Your task to perform on an android device: turn off notifications in google photos Image 0: 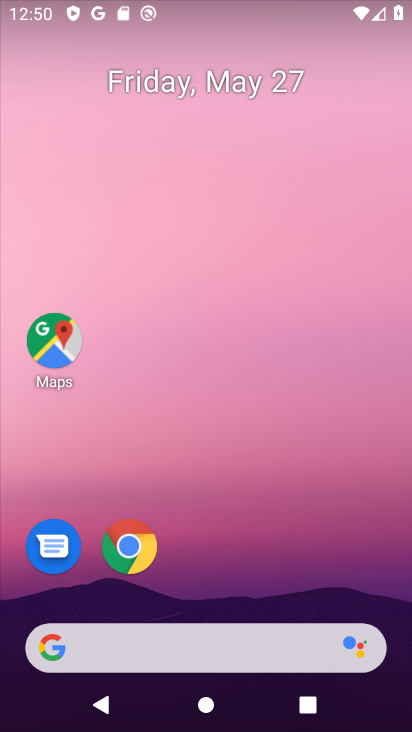
Step 0: drag from (246, 698) to (188, 257)
Your task to perform on an android device: turn off notifications in google photos Image 1: 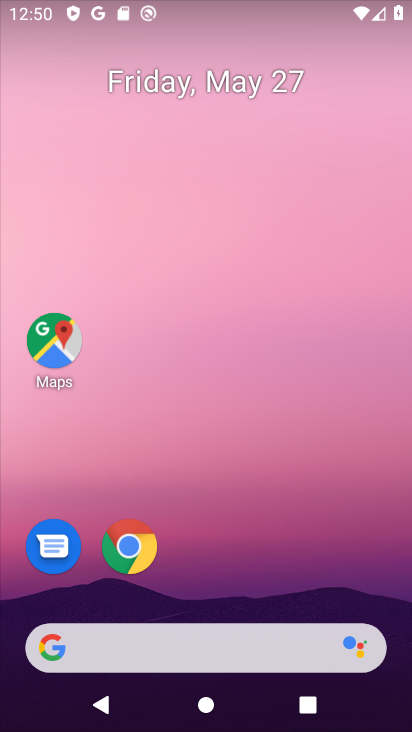
Step 1: drag from (284, 685) to (246, 310)
Your task to perform on an android device: turn off notifications in google photos Image 2: 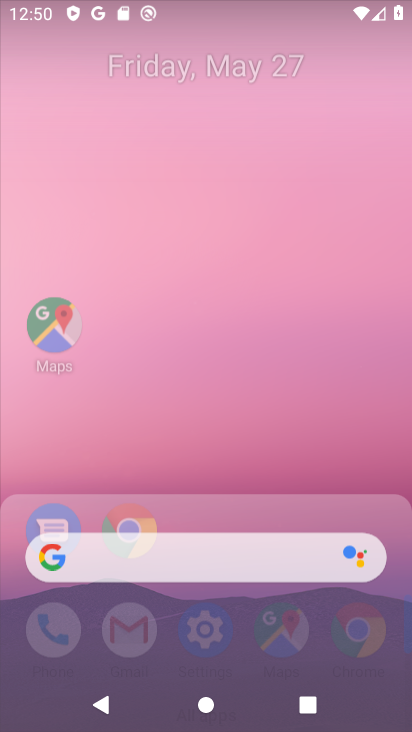
Step 2: drag from (234, 526) to (230, 209)
Your task to perform on an android device: turn off notifications in google photos Image 3: 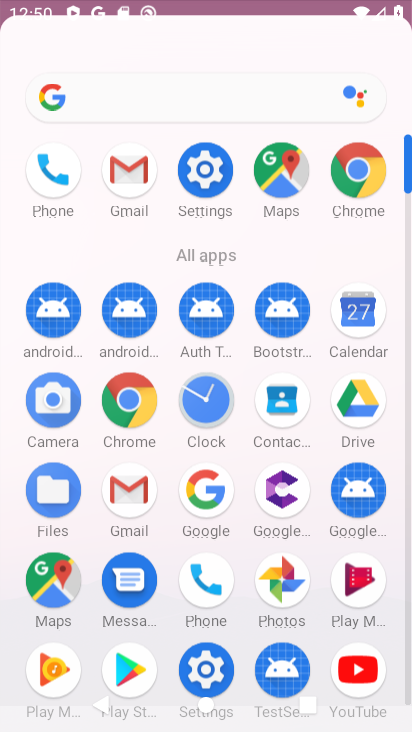
Step 3: drag from (257, 442) to (222, 82)
Your task to perform on an android device: turn off notifications in google photos Image 4: 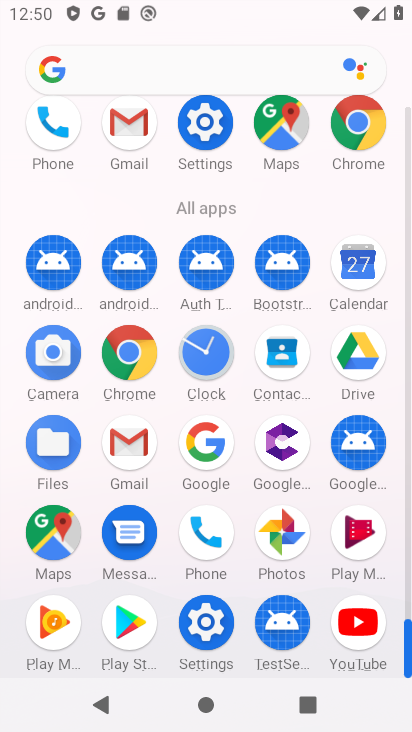
Step 4: click (272, 528)
Your task to perform on an android device: turn off notifications in google photos Image 5: 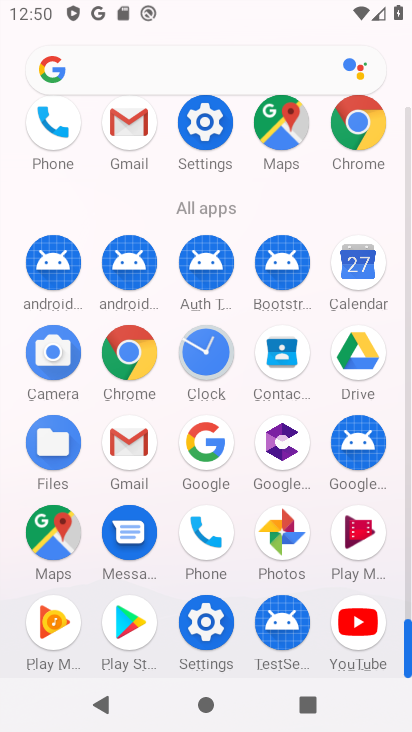
Step 5: click (272, 528)
Your task to perform on an android device: turn off notifications in google photos Image 6: 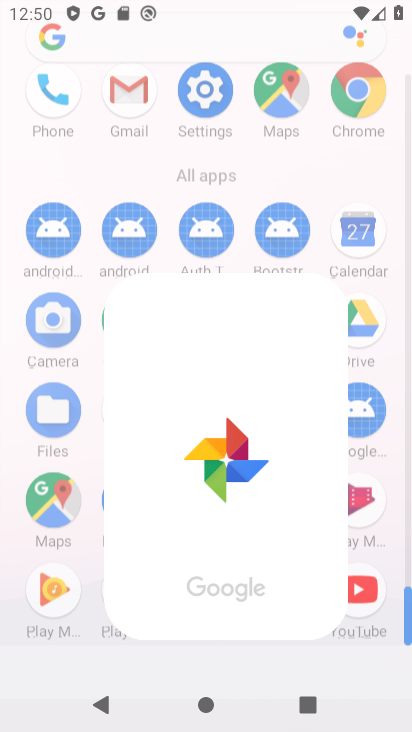
Step 6: click (272, 528)
Your task to perform on an android device: turn off notifications in google photos Image 7: 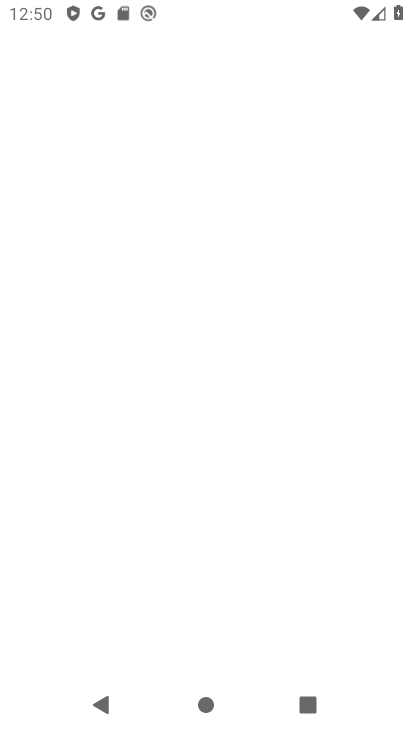
Step 7: click (273, 527)
Your task to perform on an android device: turn off notifications in google photos Image 8: 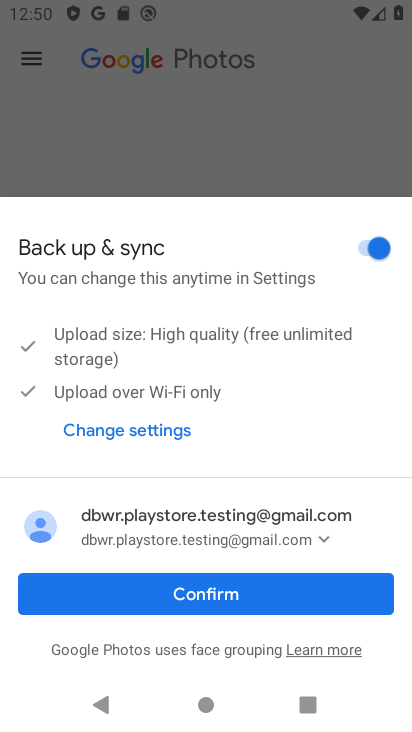
Step 8: click (233, 586)
Your task to perform on an android device: turn off notifications in google photos Image 9: 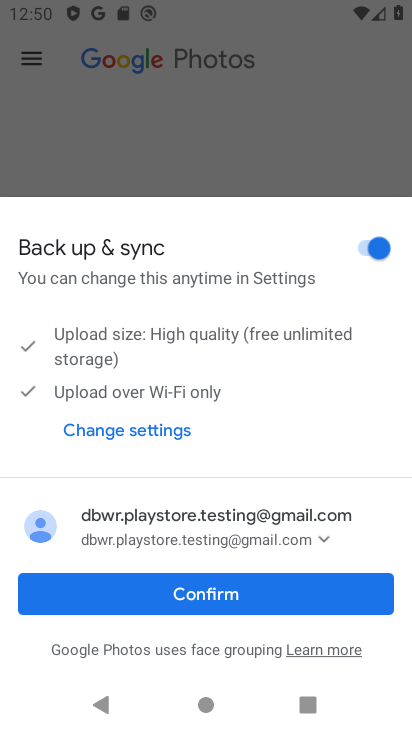
Step 9: click (233, 586)
Your task to perform on an android device: turn off notifications in google photos Image 10: 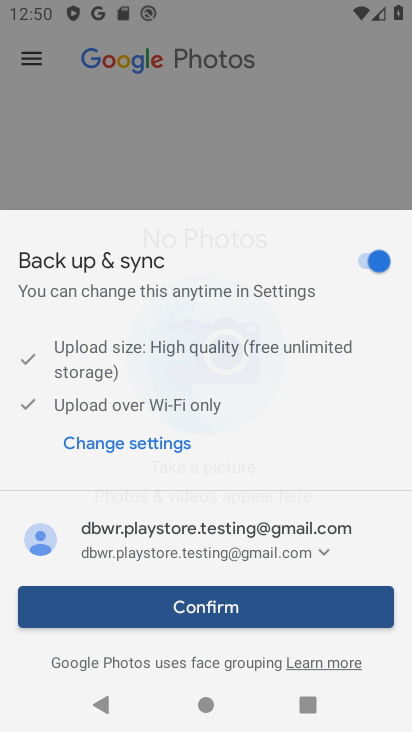
Step 10: click (233, 586)
Your task to perform on an android device: turn off notifications in google photos Image 11: 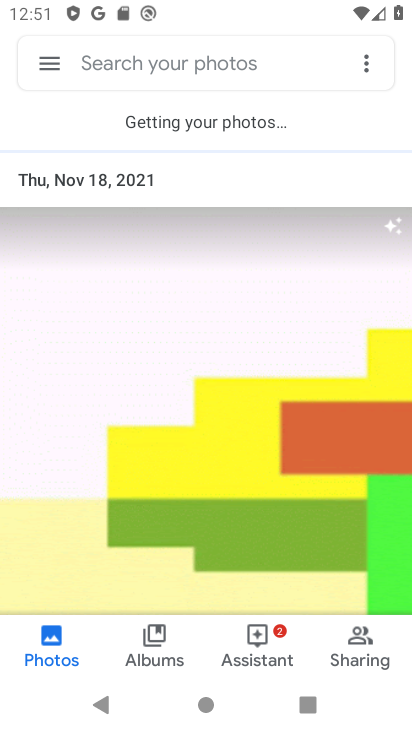
Step 11: click (55, 68)
Your task to perform on an android device: turn off notifications in google photos Image 12: 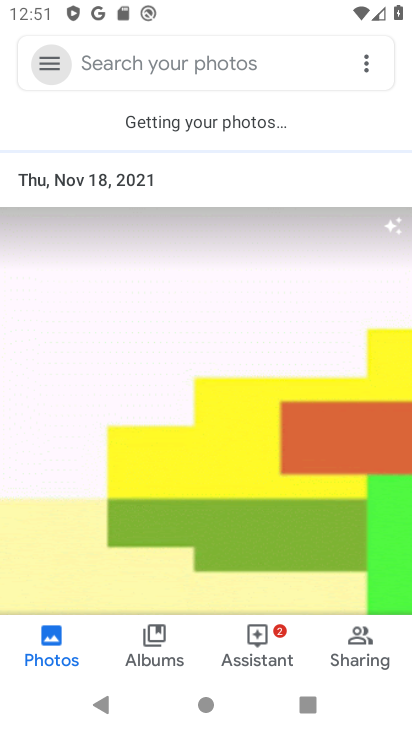
Step 12: click (54, 67)
Your task to perform on an android device: turn off notifications in google photos Image 13: 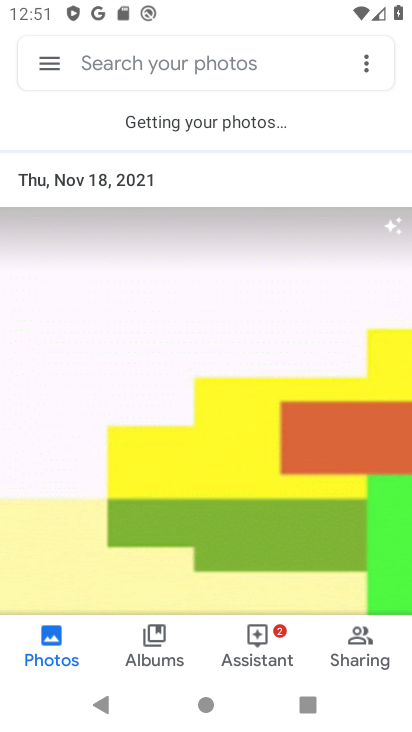
Step 13: click (48, 57)
Your task to perform on an android device: turn off notifications in google photos Image 14: 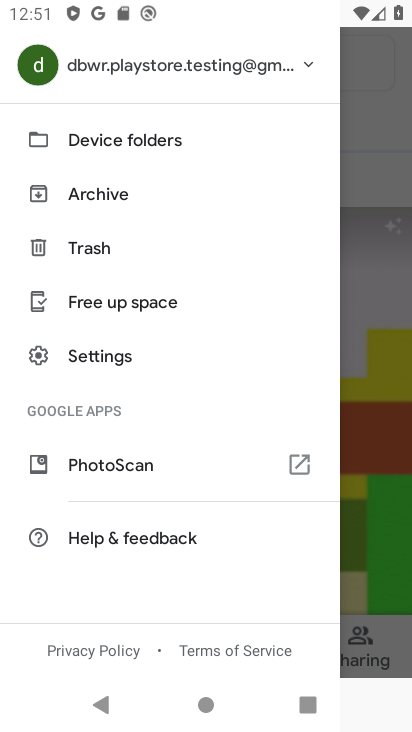
Step 14: click (96, 349)
Your task to perform on an android device: turn off notifications in google photos Image 15: 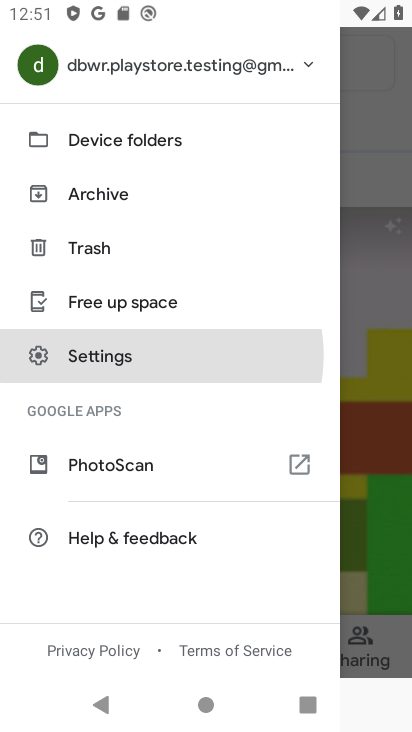
Step 15: click (96, 349)
Your task to perform on an android device: turn off notifications in google photos Image 16: 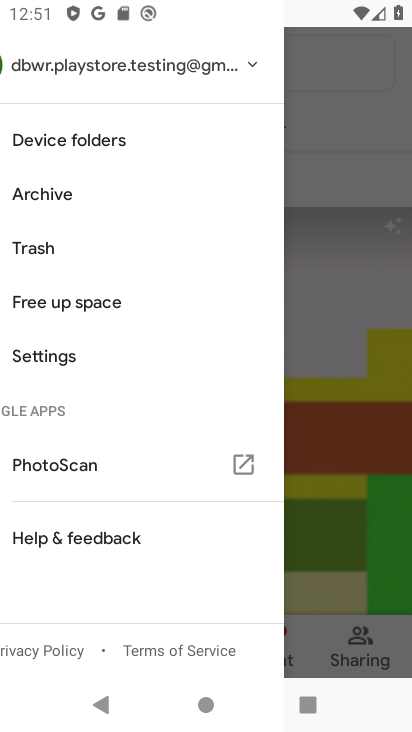
Step 16: click (96, 349)
Your task to perform on an android device: turn off notifications in google photos Image 17: 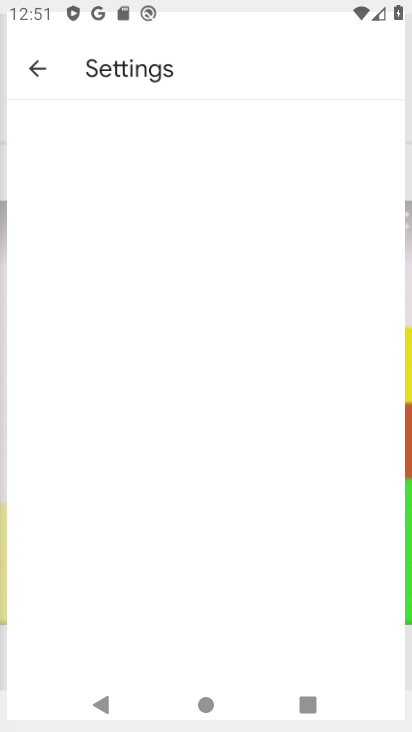
Step 17: click (96, 349)
Your task to perform on an android device: turn off notifications in google photos Image 18: 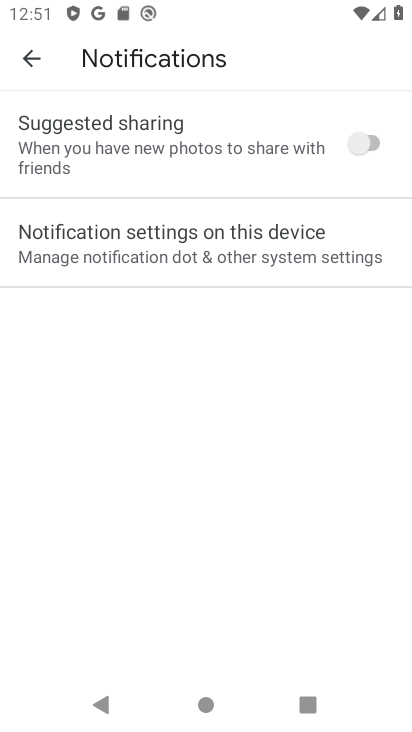
Step 18: click (120, 248)
Your task to perform on an android device: turn off notifications in google photos Image 19: 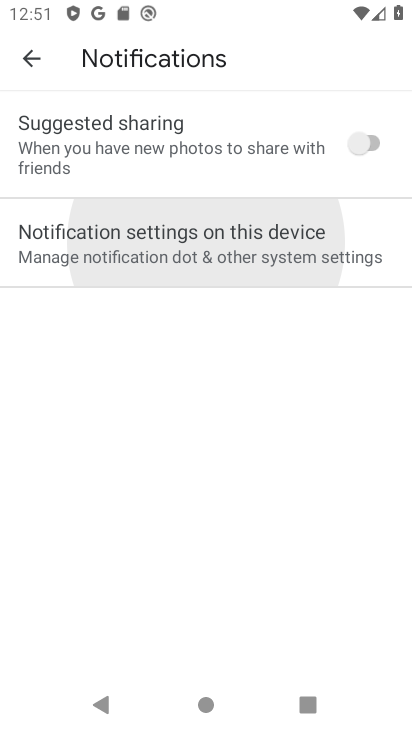
Step 19: click (120, 248)
Your task to perform on an android device: turn off notifications in google photos Image 20: 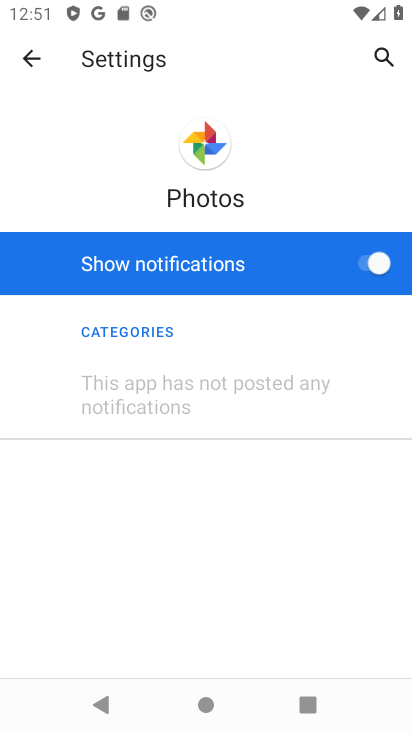
Step 20: click (383, 259)
Your task to perform on an android device: turn off notifications in google photos Image 21: 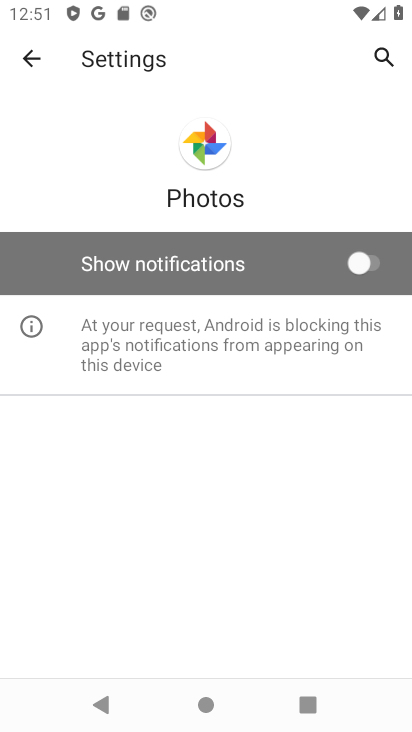
Step 21: task complete